Your task to perform on an android device: open a bookmark in the chrome app Image 0: 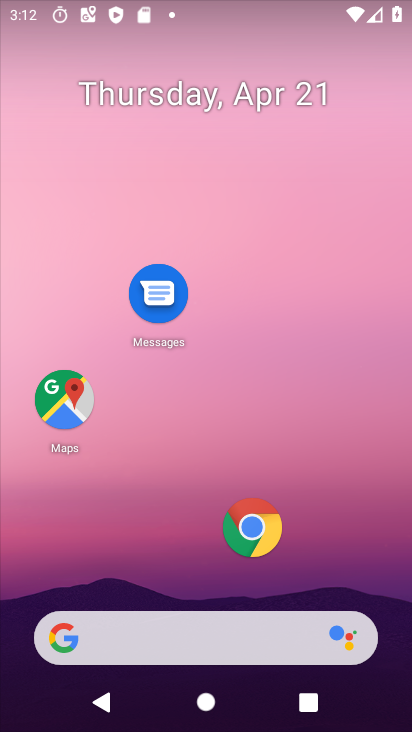
Step 0: click (254, 531)
Your task to perform on an android device: open a bookmark in the chrome app Image 1: 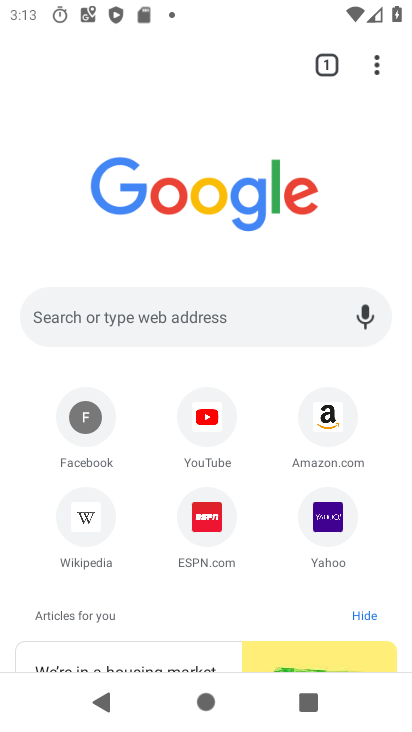
Step 1: click (377, 59)
Your task to perform on an android device: open a bookmark in the chrome app Image 2: 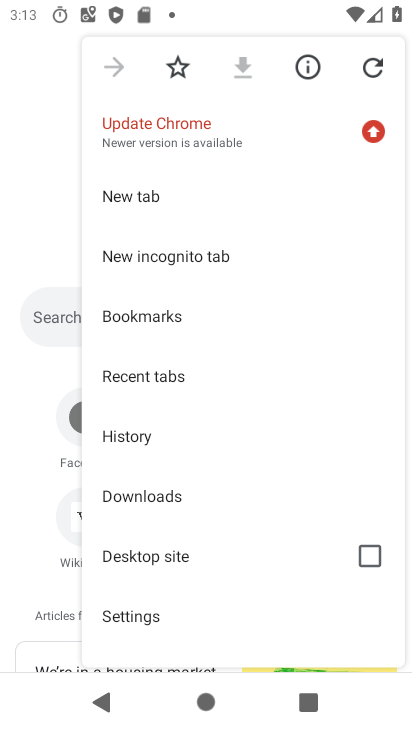
Step 2: click (185, 314)
Your task to perform on an android device: open a bookmark in the chrome app Image 3: 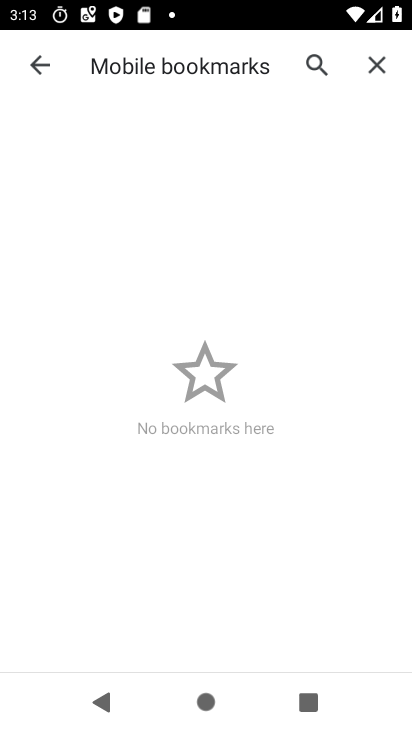
Step 3: task complete